Your task to perform on an android device: Open settings on Google Maps Image 0: 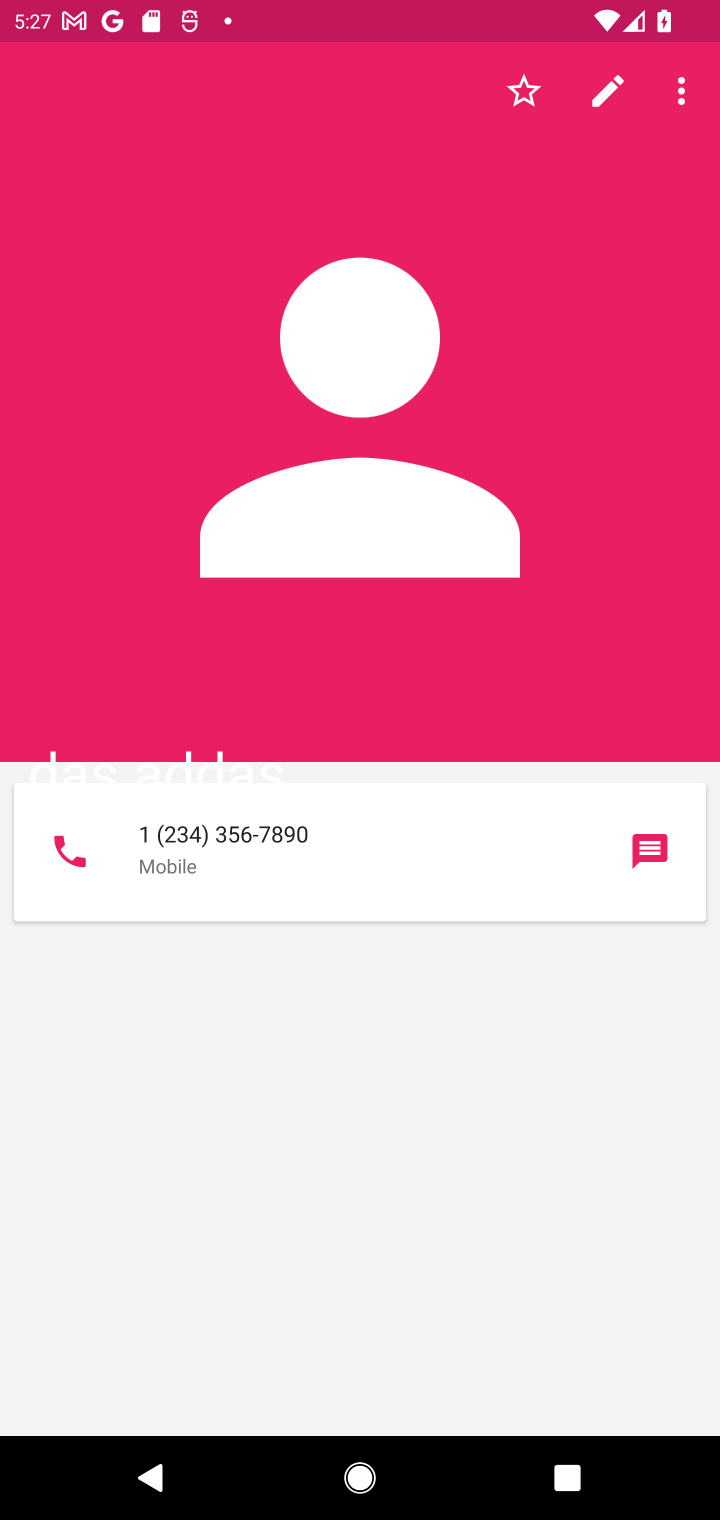
Step 0: press home button
Your task to perform on an android device: Open settings on Google Maps Image 1: 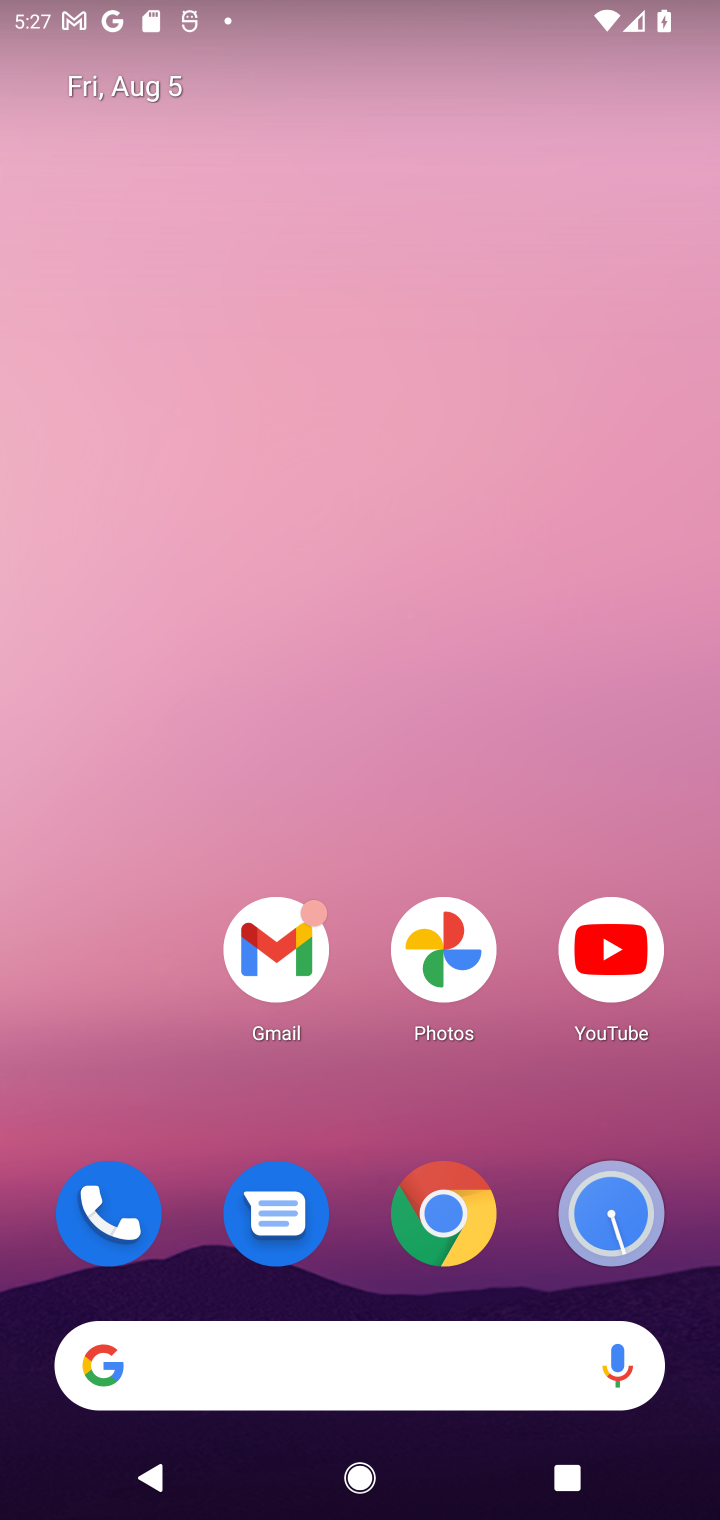
Step 1: drag from (361, 1308) to (341, 219)
Your task to perform on an android device: Open settings on Google Maps Image 2: 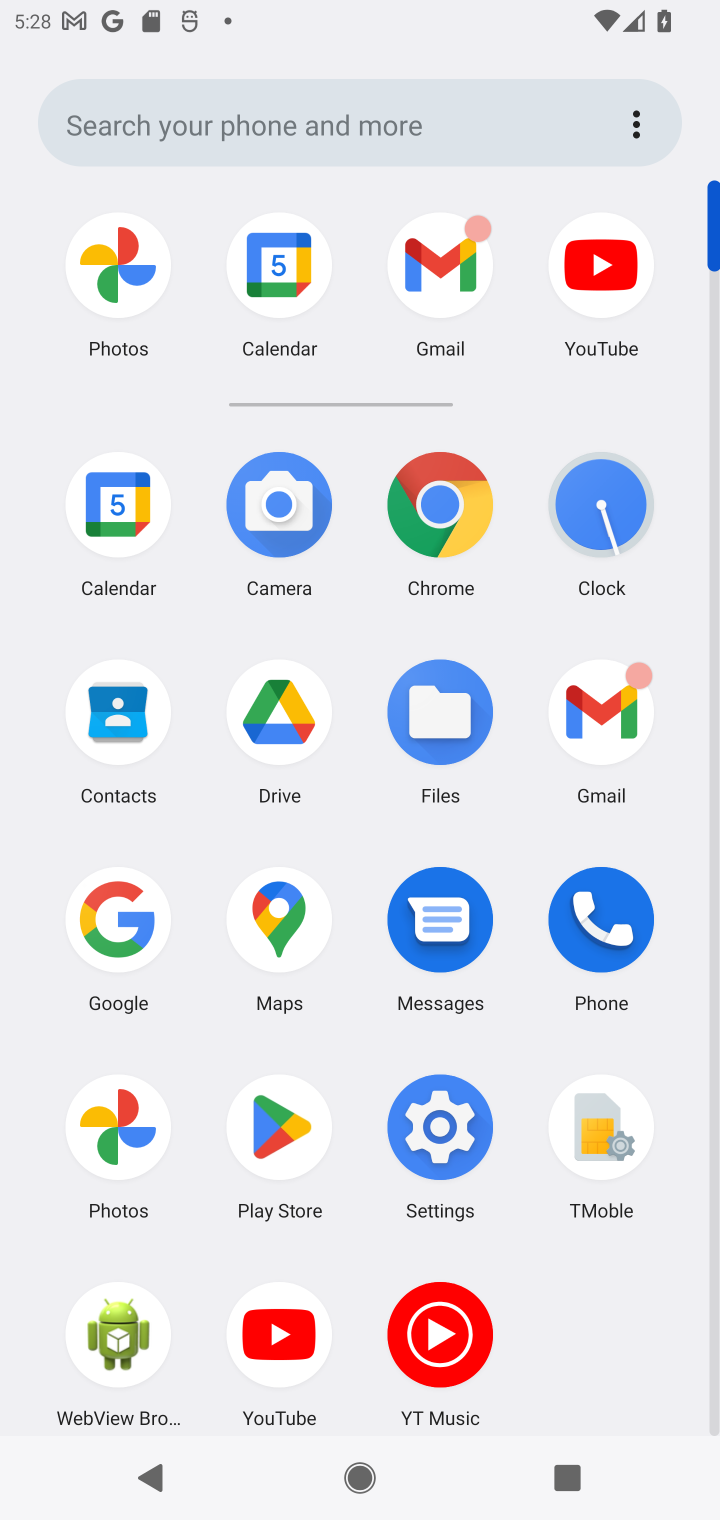
Step 2: click (438, 1198)
Your task to perform on an android device: Open settings on Google Maps Image 3: 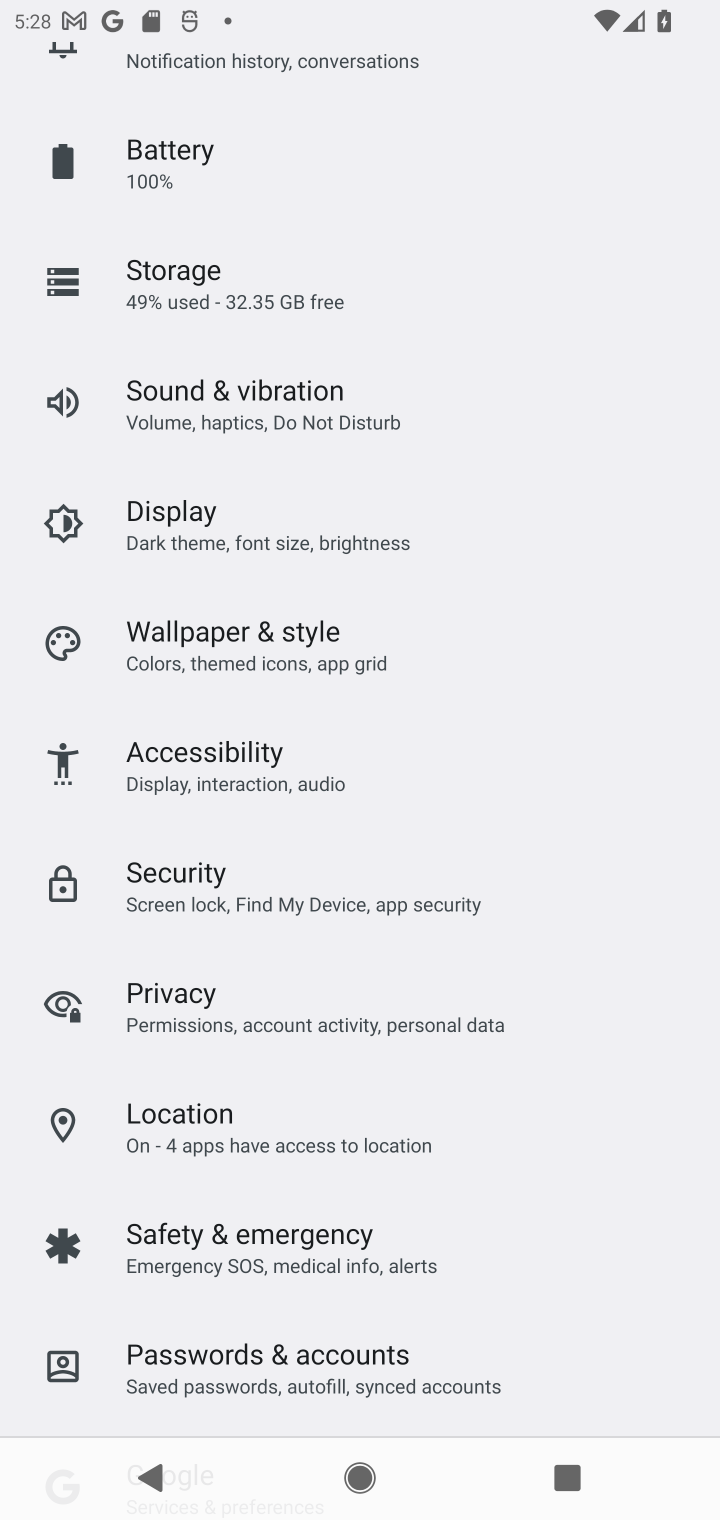
Step 3: task complete